Your task to perform on an android device: Clear the cart on walmart. Search for acer nitro on walmart, select the first entry, and add it to the cart. Image 0: 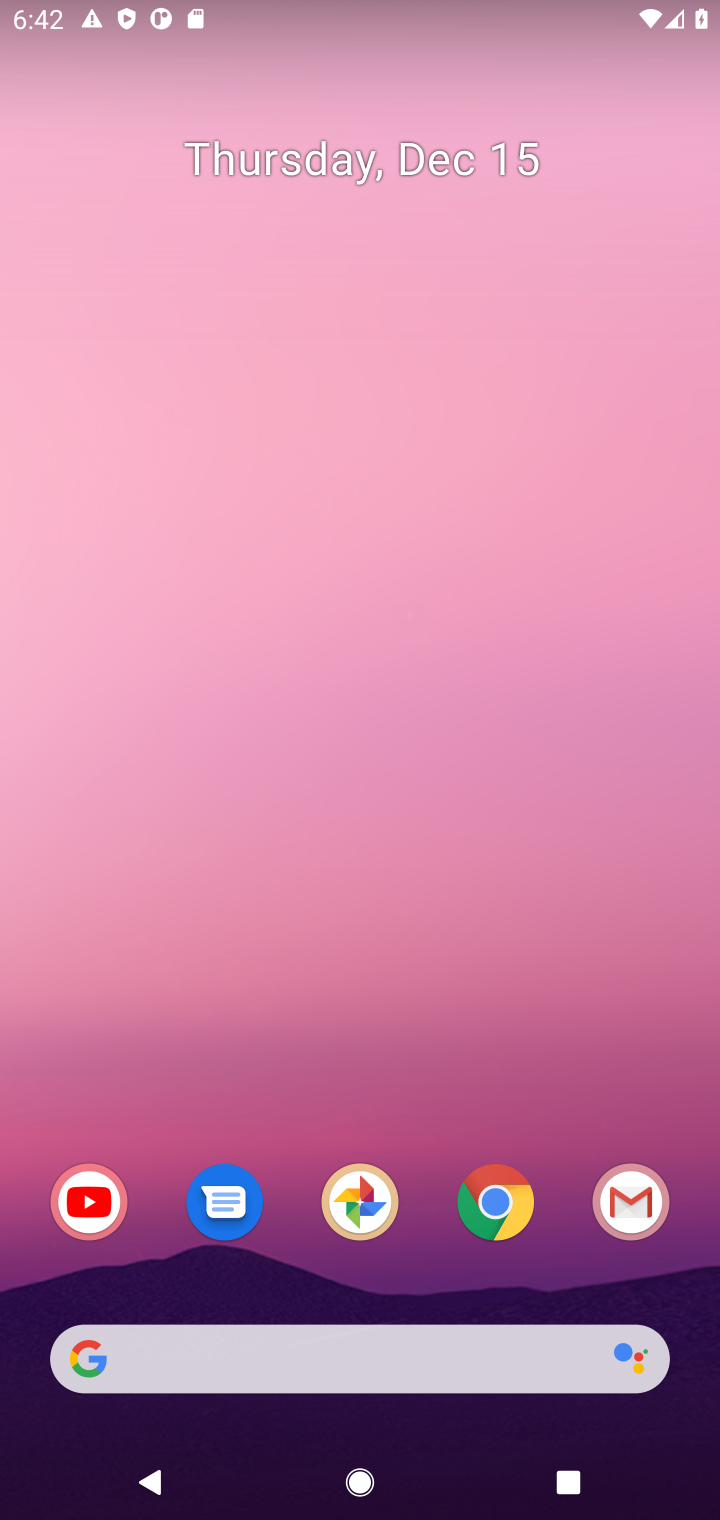
Step 0: click (501, 1211)
Your task to perform on an android device: Clear the cart on walmart. Search for acer nitro on walmart, select the first entry, and add it to the cart. Image 1: 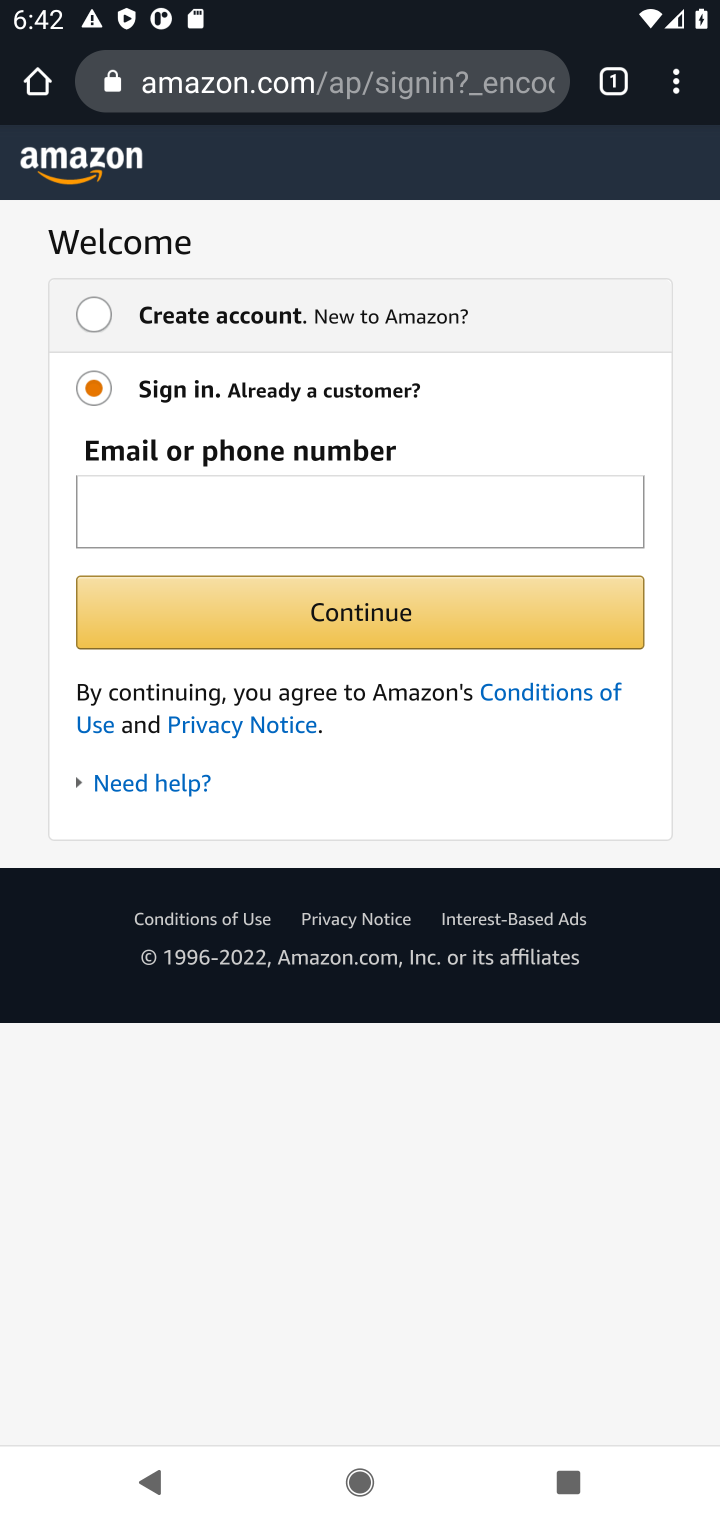
Step 1: click (304, 91)
Your task to perform on an android device: Clear the cart on walmart. Search for acer nitro on walmart, select the first entry, and add it to the cart. Image 2: 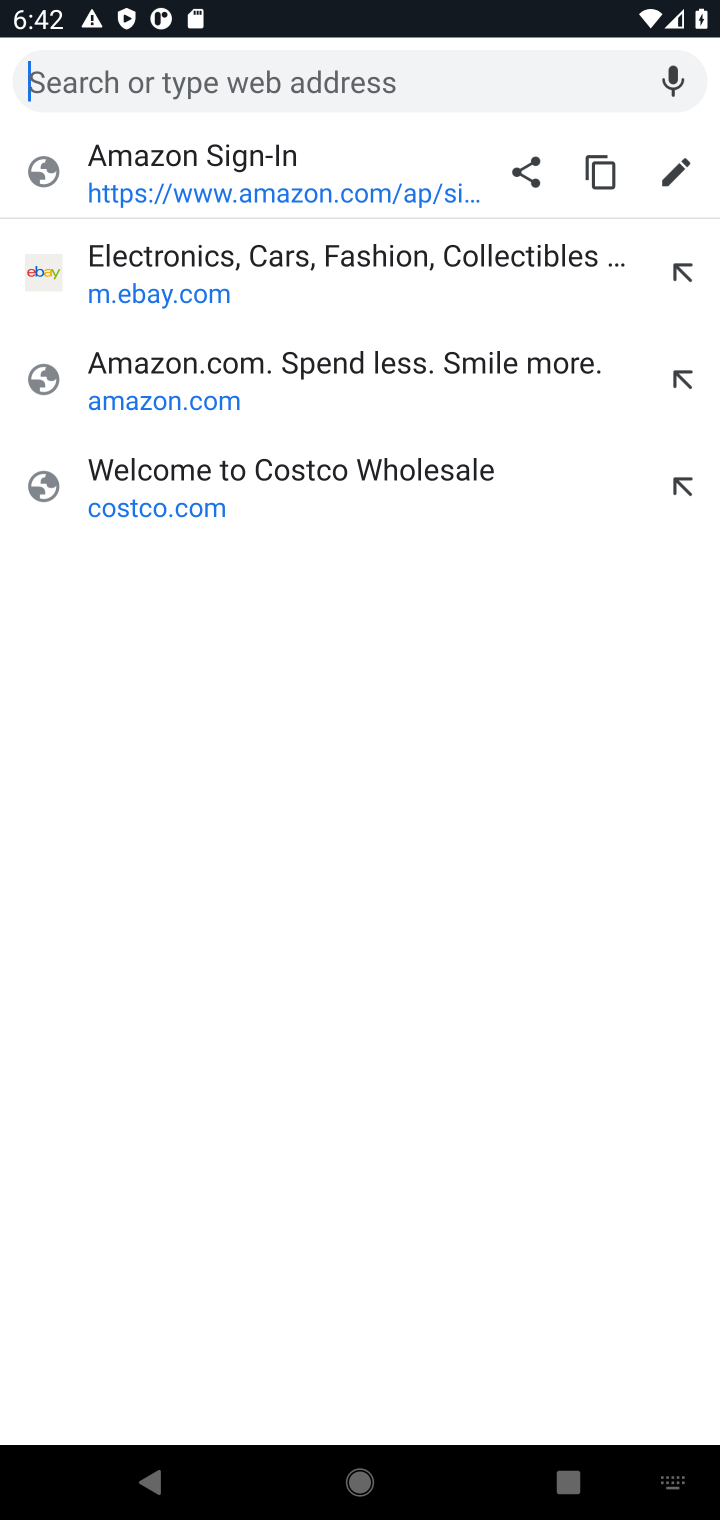
Step 2: type "walmart.com"
Your task to perform on an android device: Clear the cart on walmart. Search for acer nitro on walmart, select the first entry, and add it to the cart. Image 3: 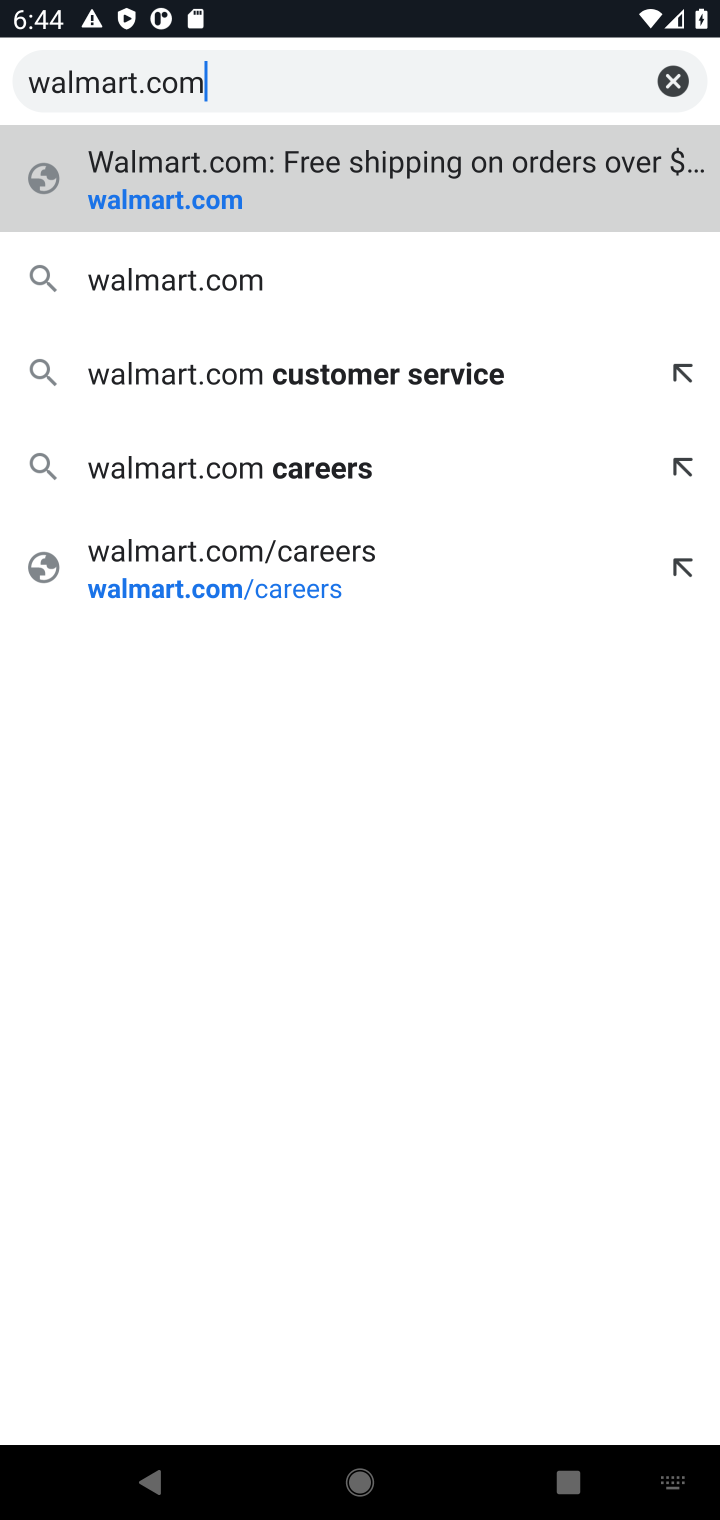
Step 3: click (145, 197)
Your task to perform on an android device: Clear the cart on walmart. Search for acer nitro on walmart, select the first entry, and add it to the cart. Image 4: 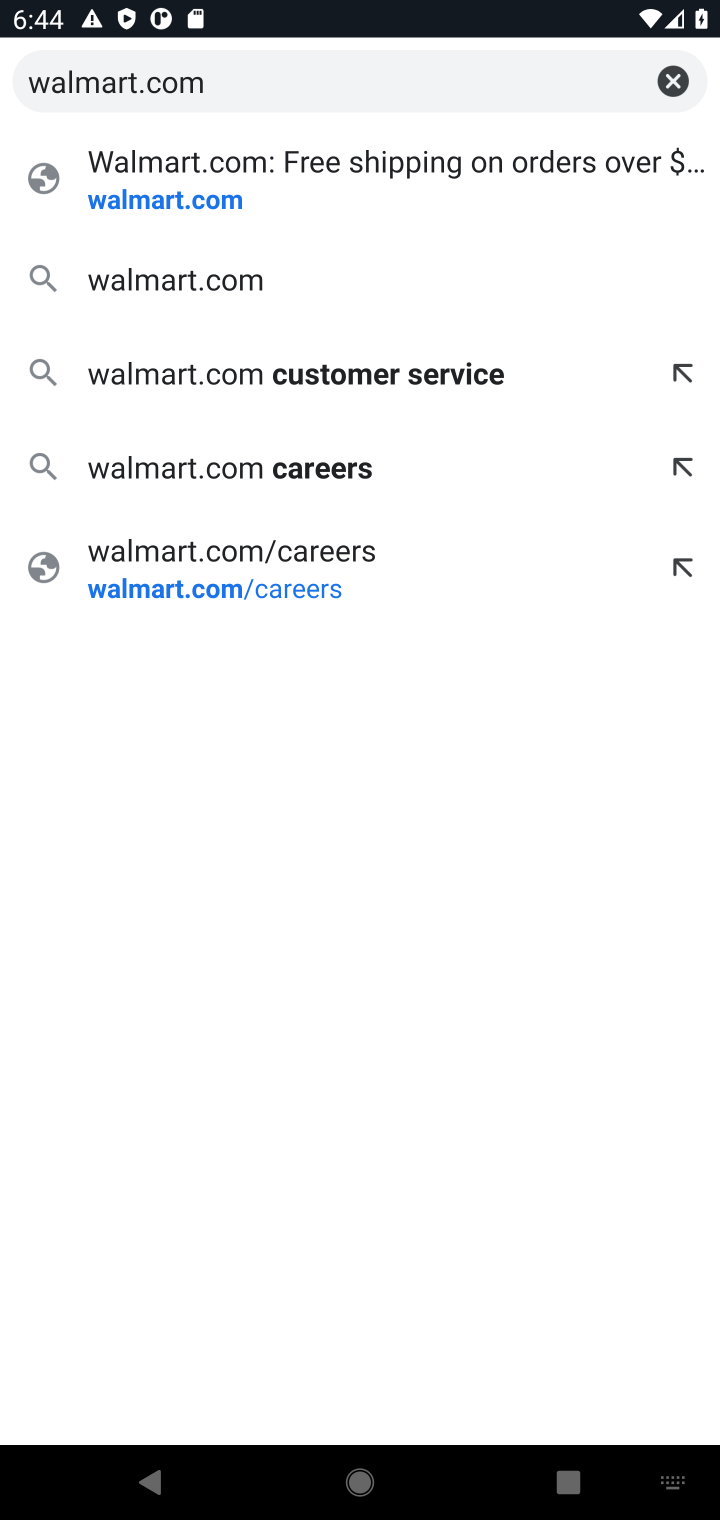
Step 4: click (126, 208)
Your task to perform on an android device: Clear the cart on walmart. Search for acer nitro on walmart, select the first entry, and add it to the cart. Image 5: 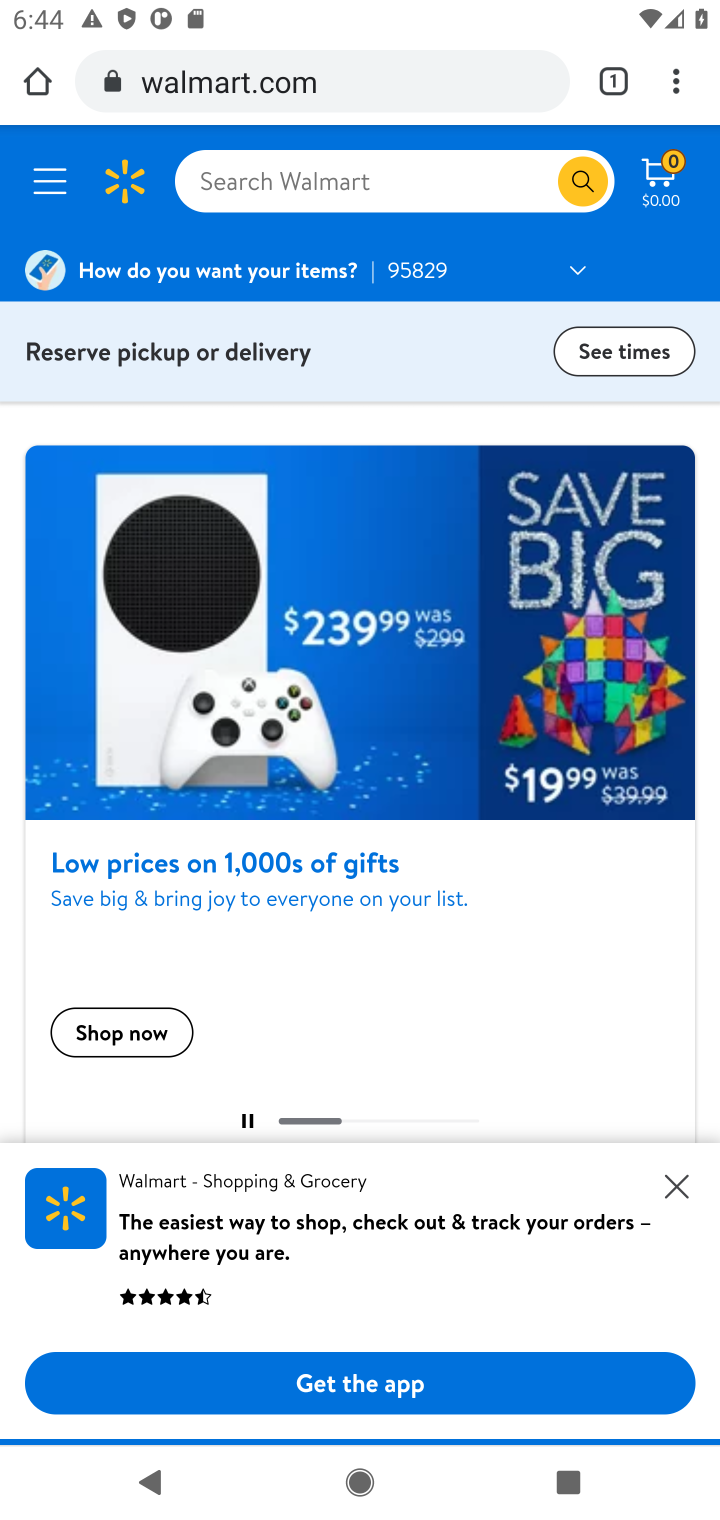
Step 5: click (657, 189)
Your task to perform on an android device: Clear the cart on walmart. Search for acer nitro on walmart, select the first entry, and add it to the cart. Image 6: 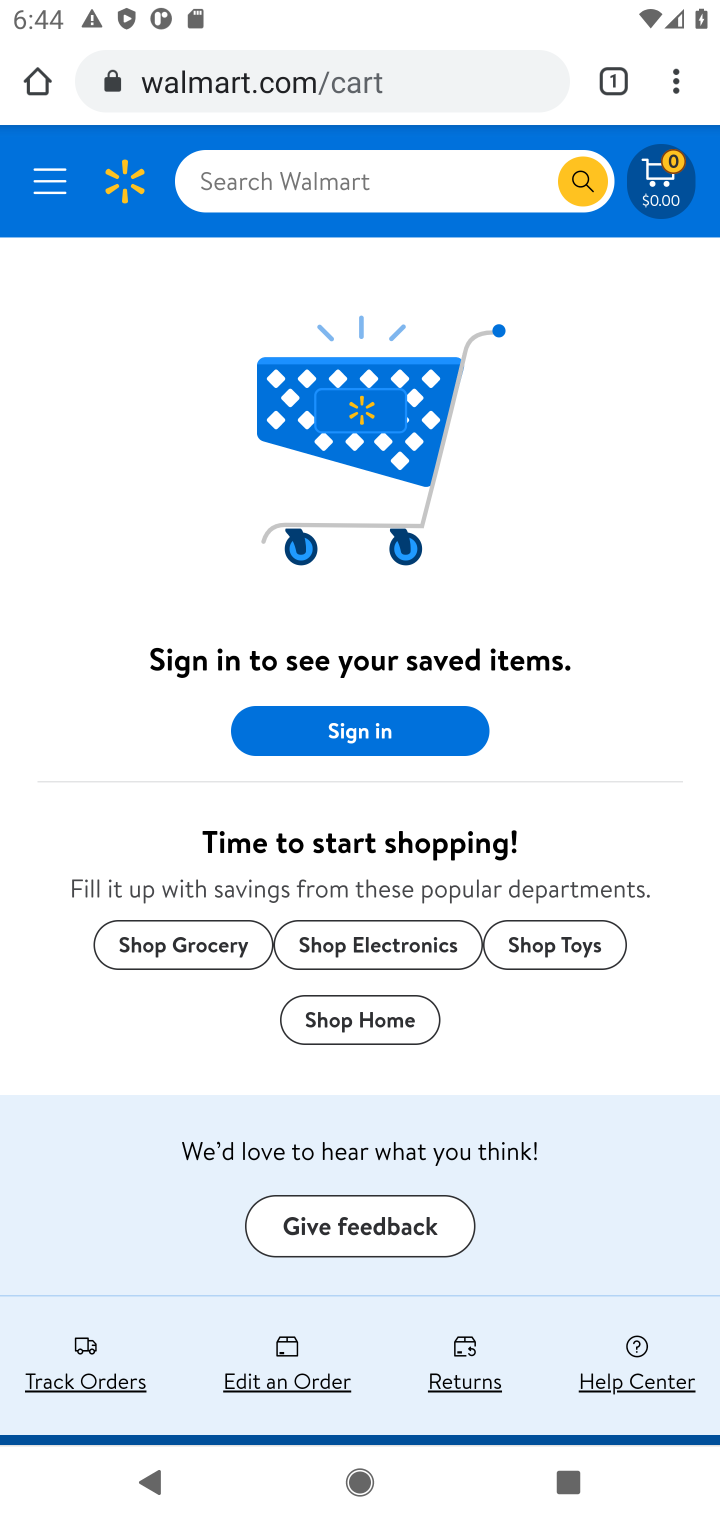
Step 6: click (236, 187)
Your task to perform on an android device: Clear the cart on walmart. Search for acer nitro on walmart, select the first entry, and add it to the cart. Image 7: 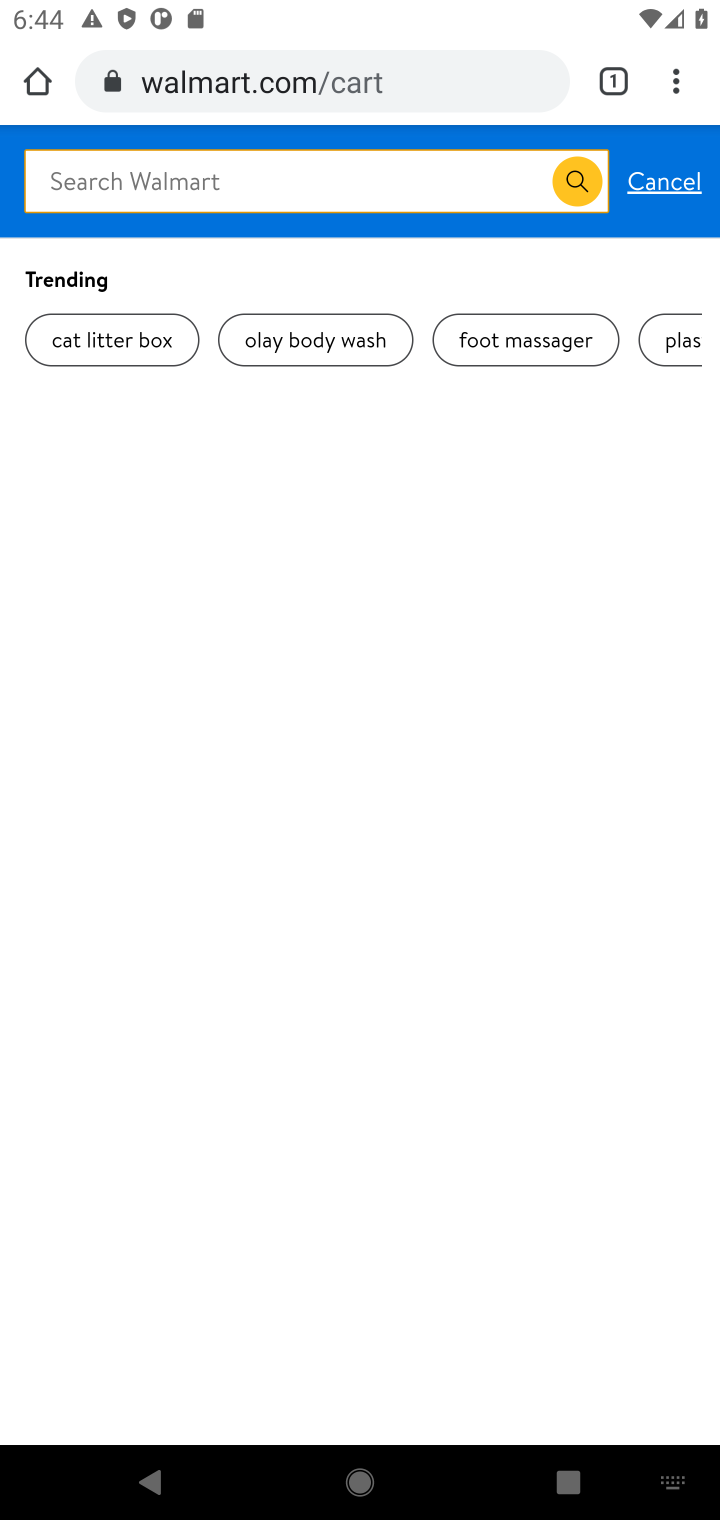
Step 7: type "acer nitro"
Your task to perform on an android device: Clear the cart on walmart. Search for acer nitro on walmart, select the first entry, and add it to the cart. Image 8: 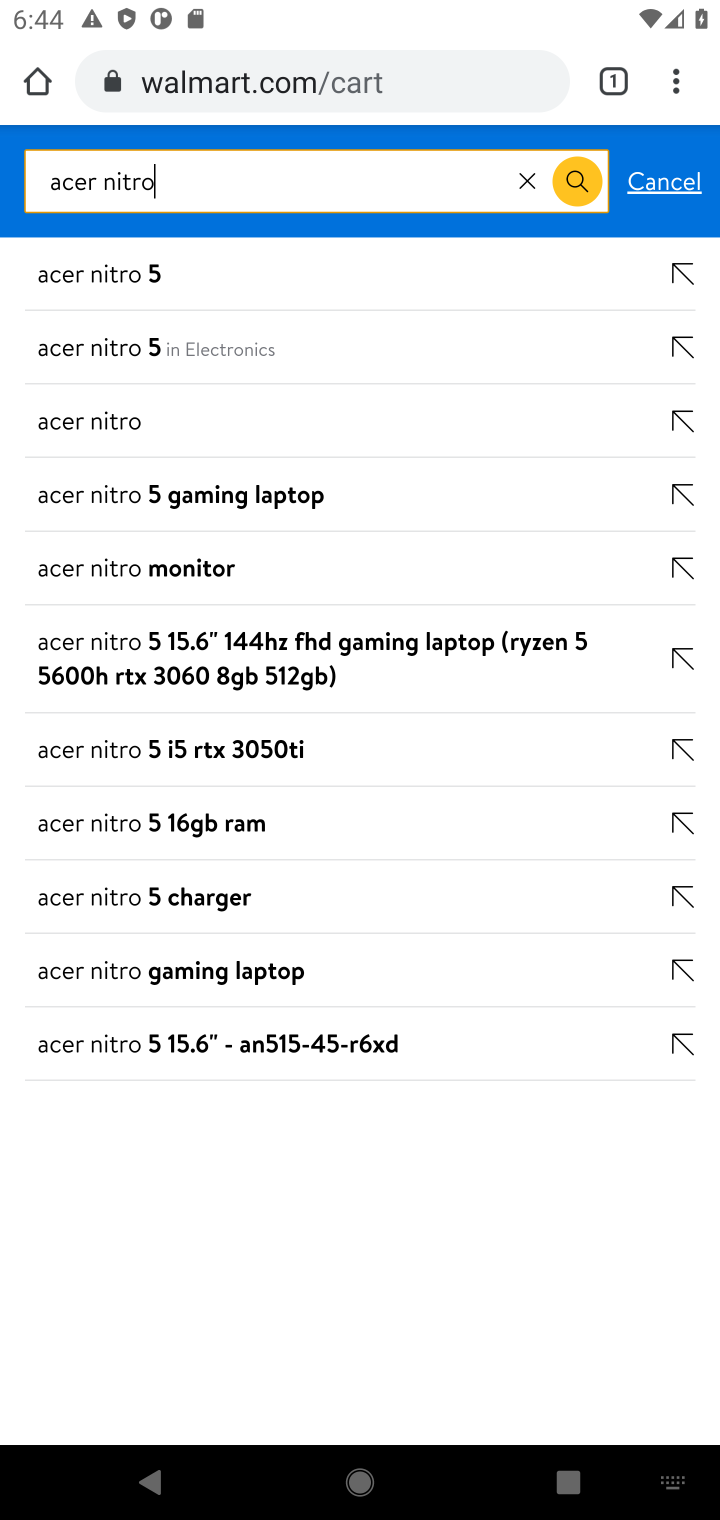
Step 8: click (55, 446)
Your task to perform on an android device: Clear the cart on walmart. Search for acer nitro on walmart, select the first entry, and add it to the cart. Image 9: 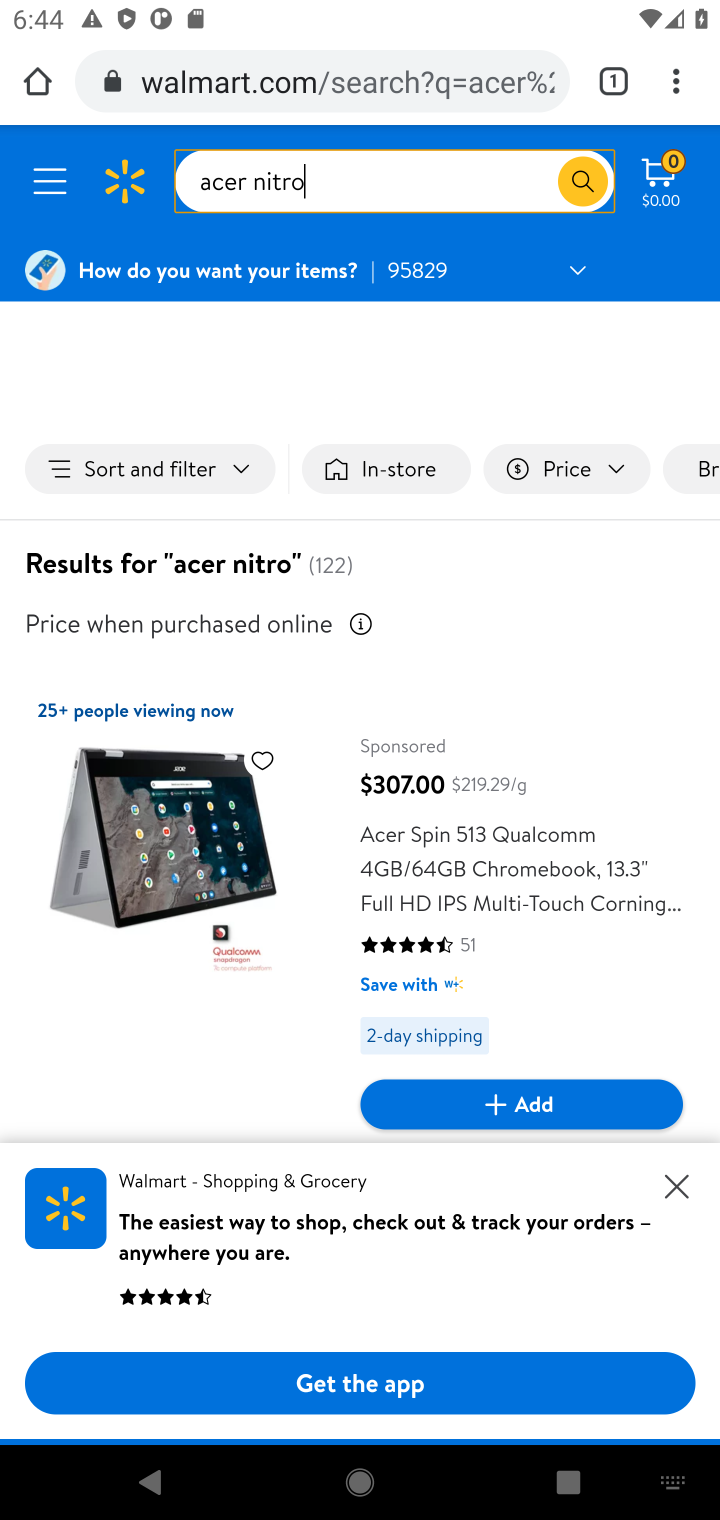
Step 9: task complete